Your task to perform on an android device: turn off translation in the chrome app Image 0: 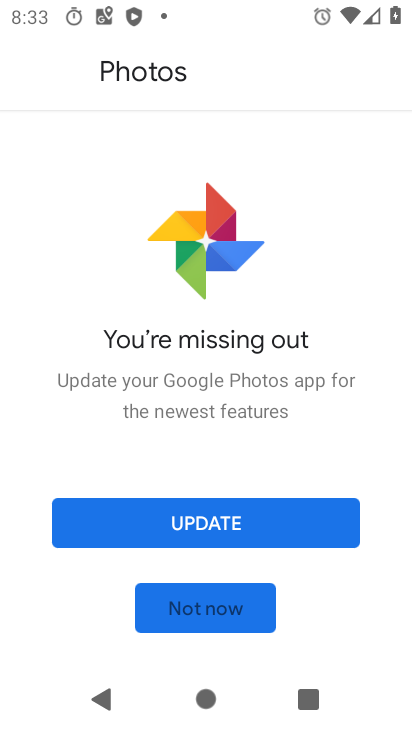
Step 0: press home button
Your task to perform on an android device: turn off translation in the chrome app Image 1: 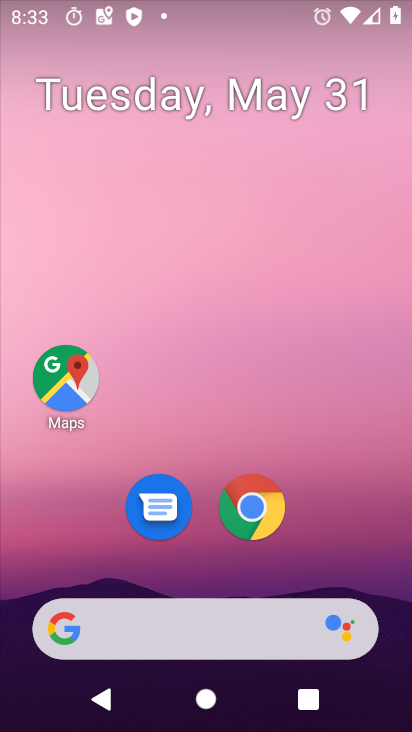
Step 1: click (255, 513)
Your task to perform on an android device: turn off translation in the chrome app Image 2: 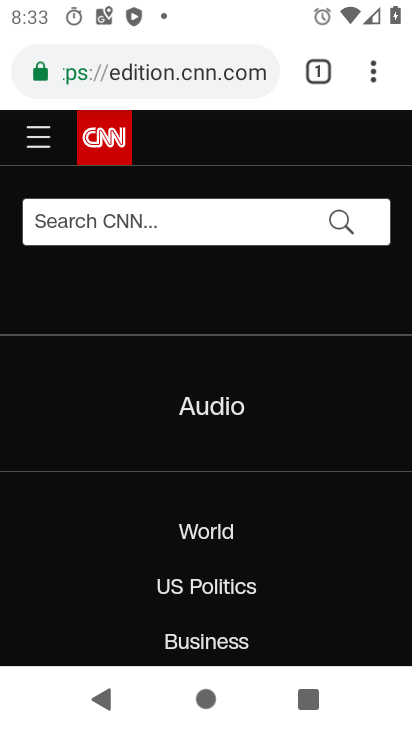
Step 2: click (374, 68)
Your task to perform on an android device: turn off translation in the chrome app Image 3: 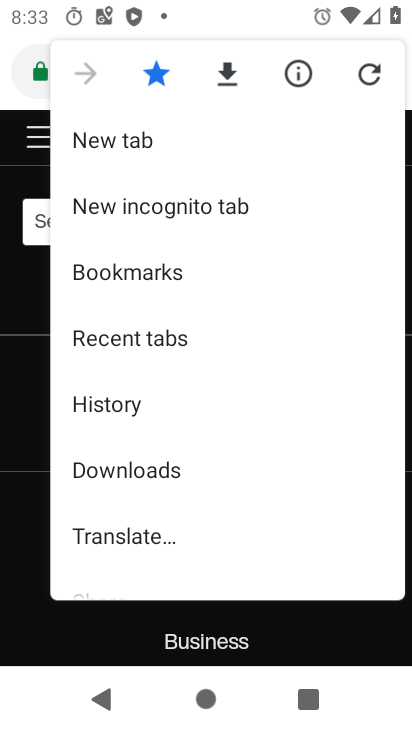
Step 3: drag from (200, 407) to (200, 106)
Your task to perform on an android device: turn off translation in the chrome app Image 4: 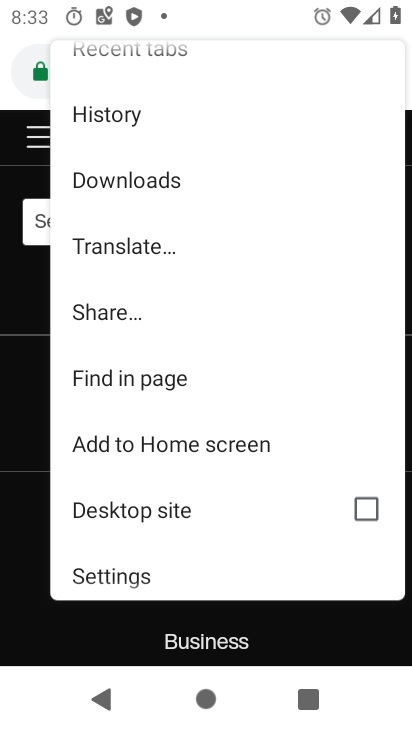
Step 4: drag from (201, 486) to (197, 161)
Your task to perform on an android device: turn off translation in the chrome app Image 5: 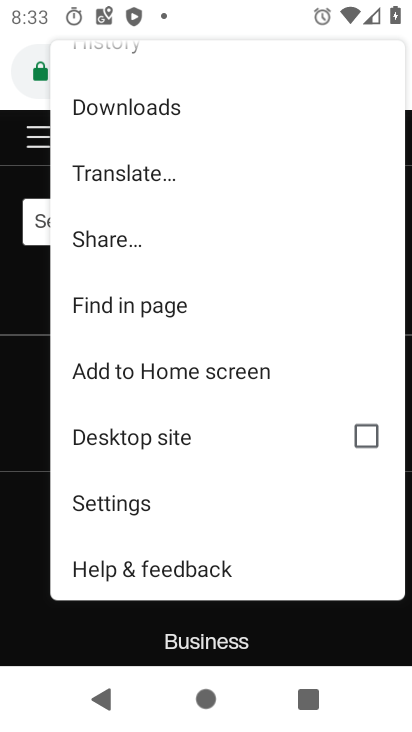
Step 5: click (124, 504)
Your task to perform on an android device: turn off translation in the chrome app Image 6: 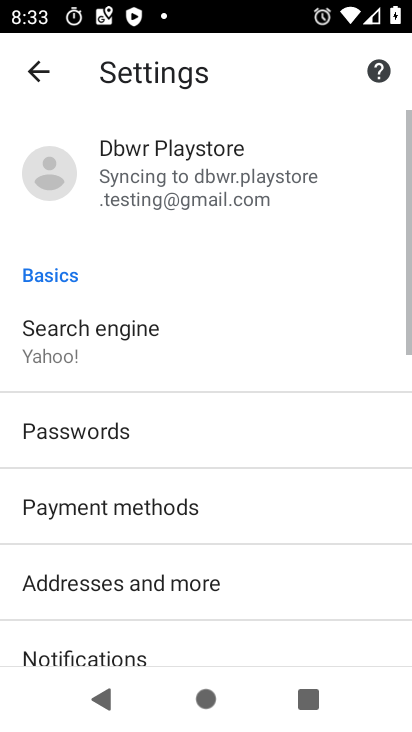
Step 6: drag from (265, 583) to (243, 134)
Your task to perform on an android device: turn off translation in the chrome app Image 7: 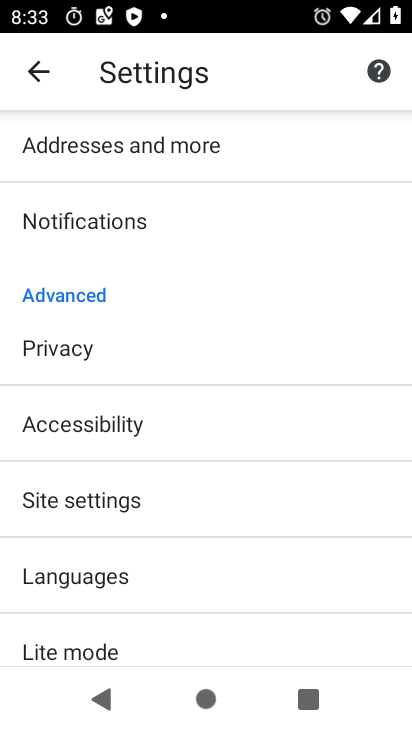
Step 7: click (104, 581)
Your task to perform on an android device: turn off translation in the chrome app Image 8: 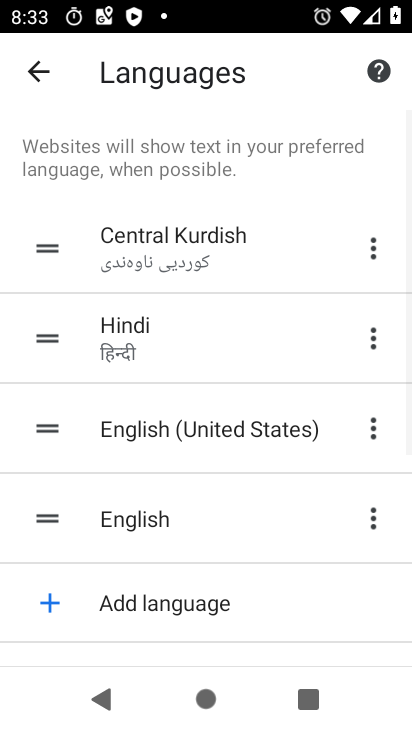
Step 8: task complete